Your task to perform on an android device: How big is a dinosaur? Image 0: 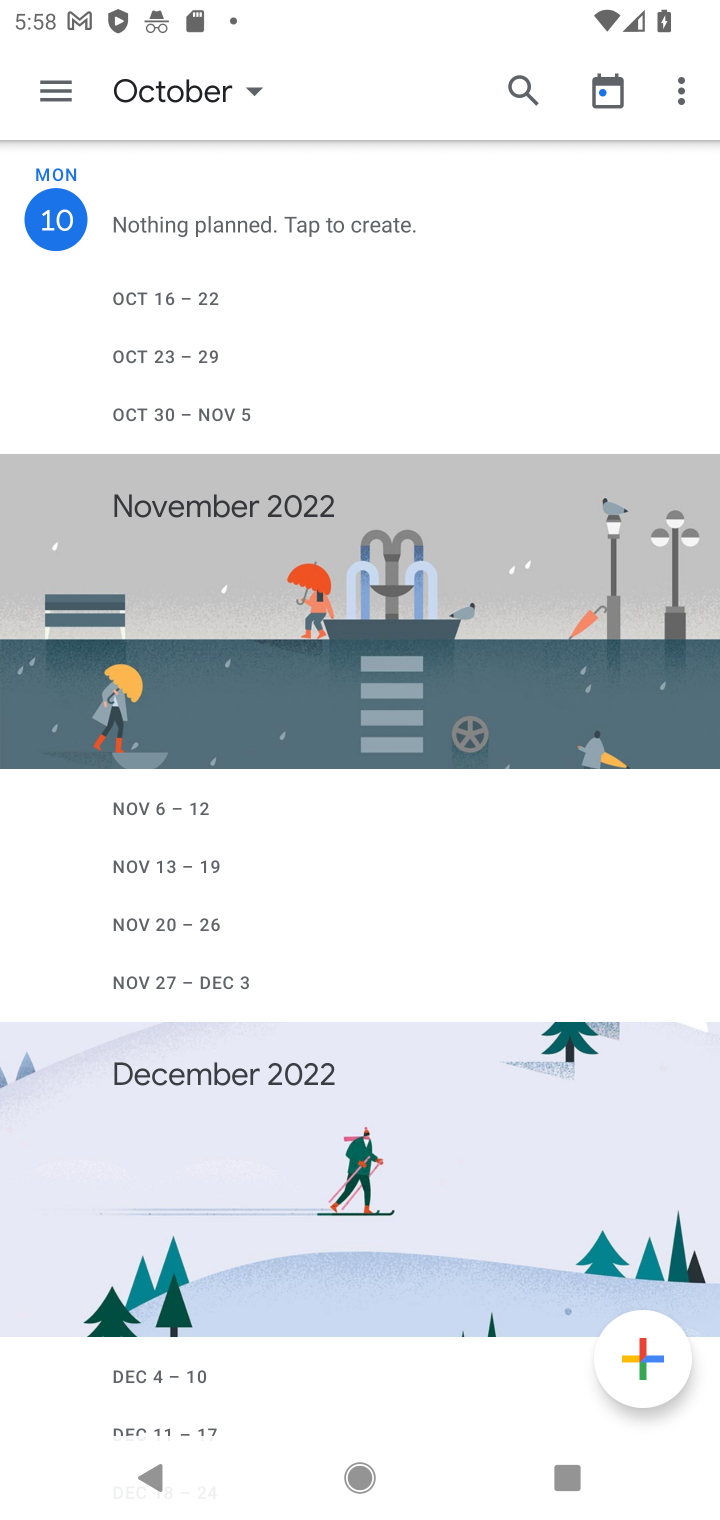
Step 0: press home button
Your task to perform on an android device: How big is a dinosaur? Image 1: 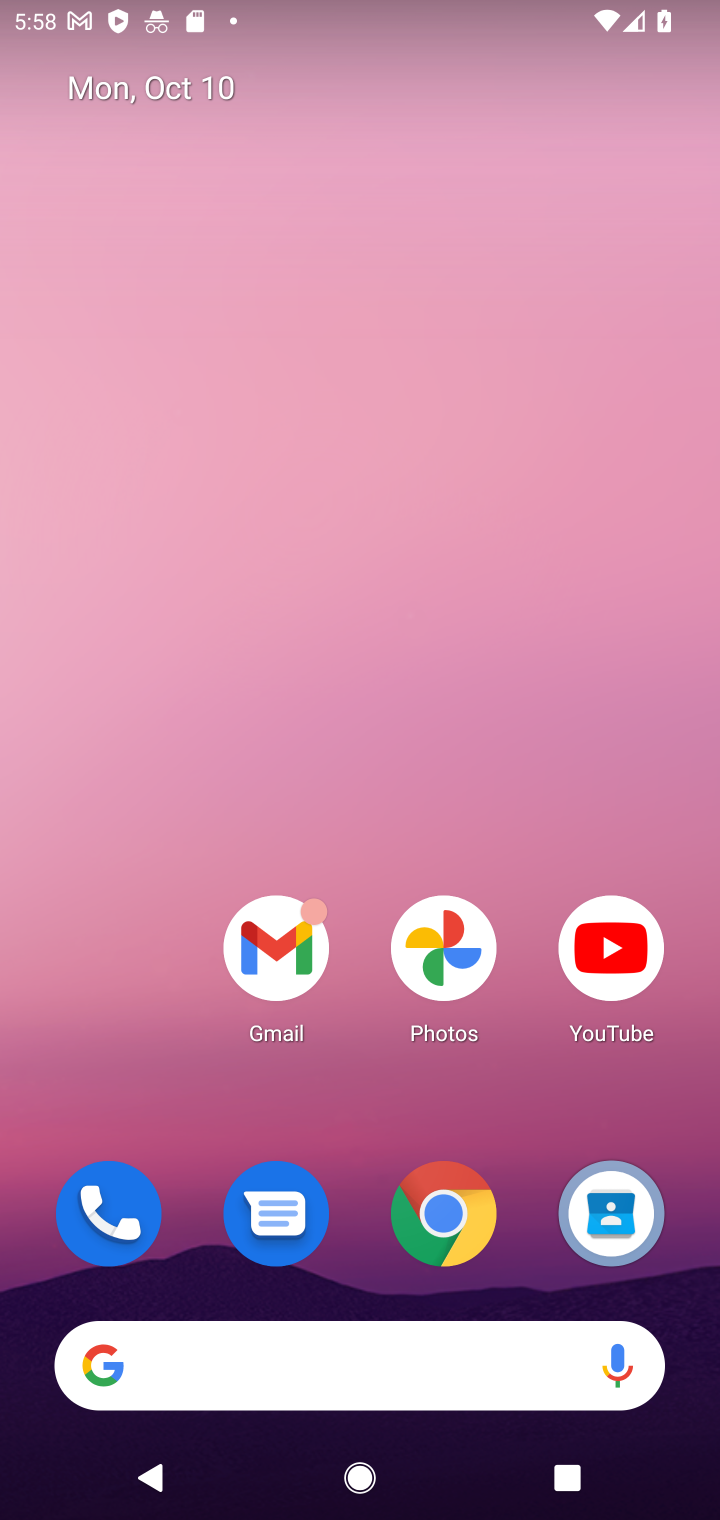
Step 1: click (349, 1382)
Your task to perform on an android device: How big is a dinosaur? Image 2: 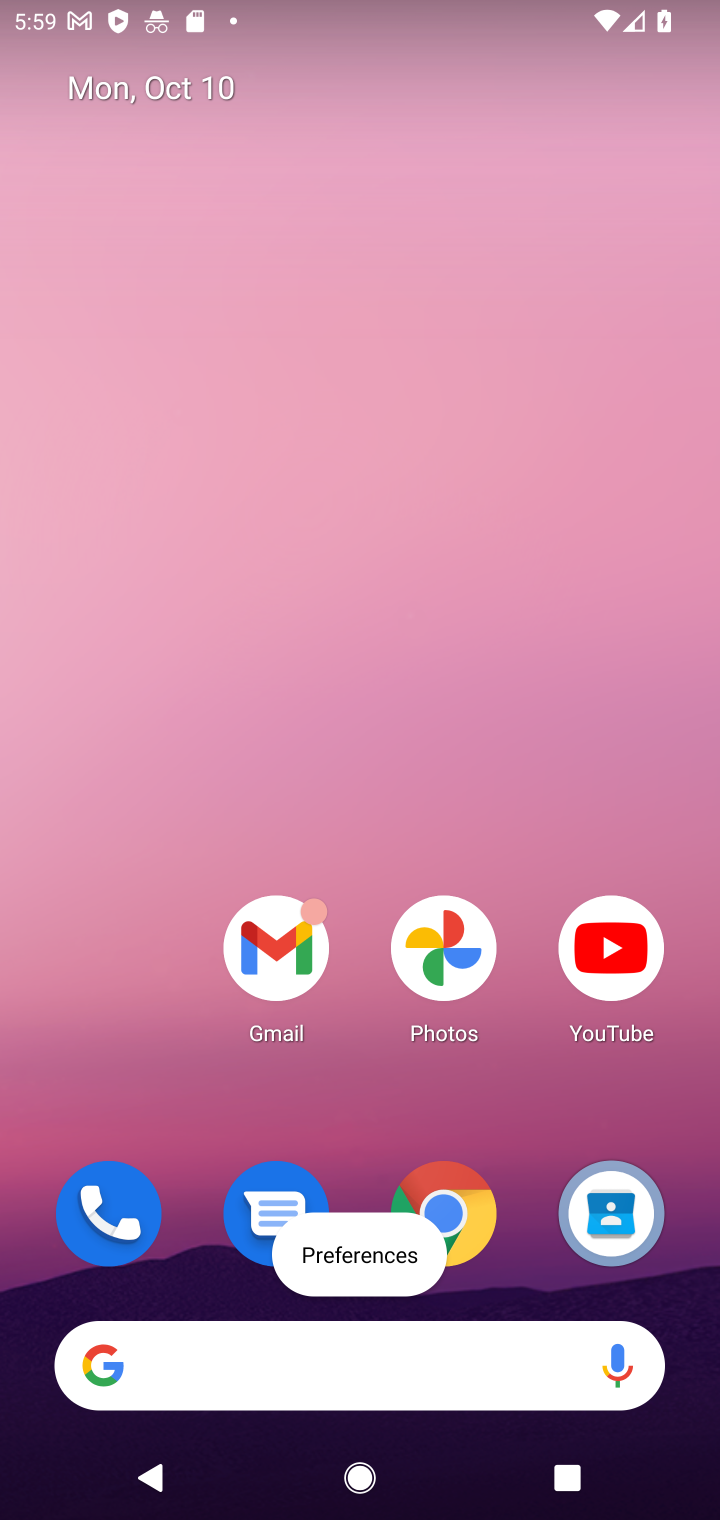
Step 2: click (371, 1377)
Your task to perform on an android device: How big is a dinosaur? Image 3: 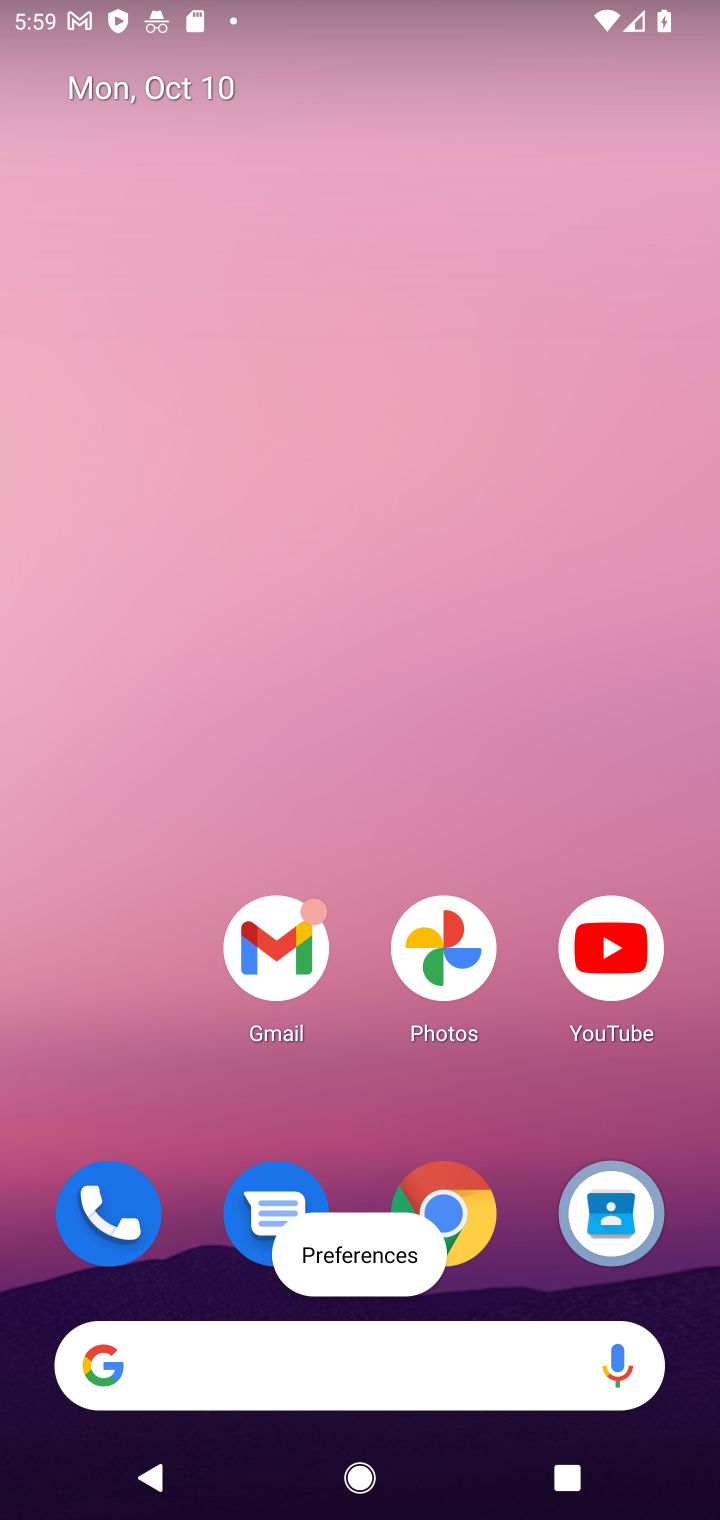
Step 3: click (342, 1355)
Your task to perform on an android device: How big is a dinosaur? Image 4: 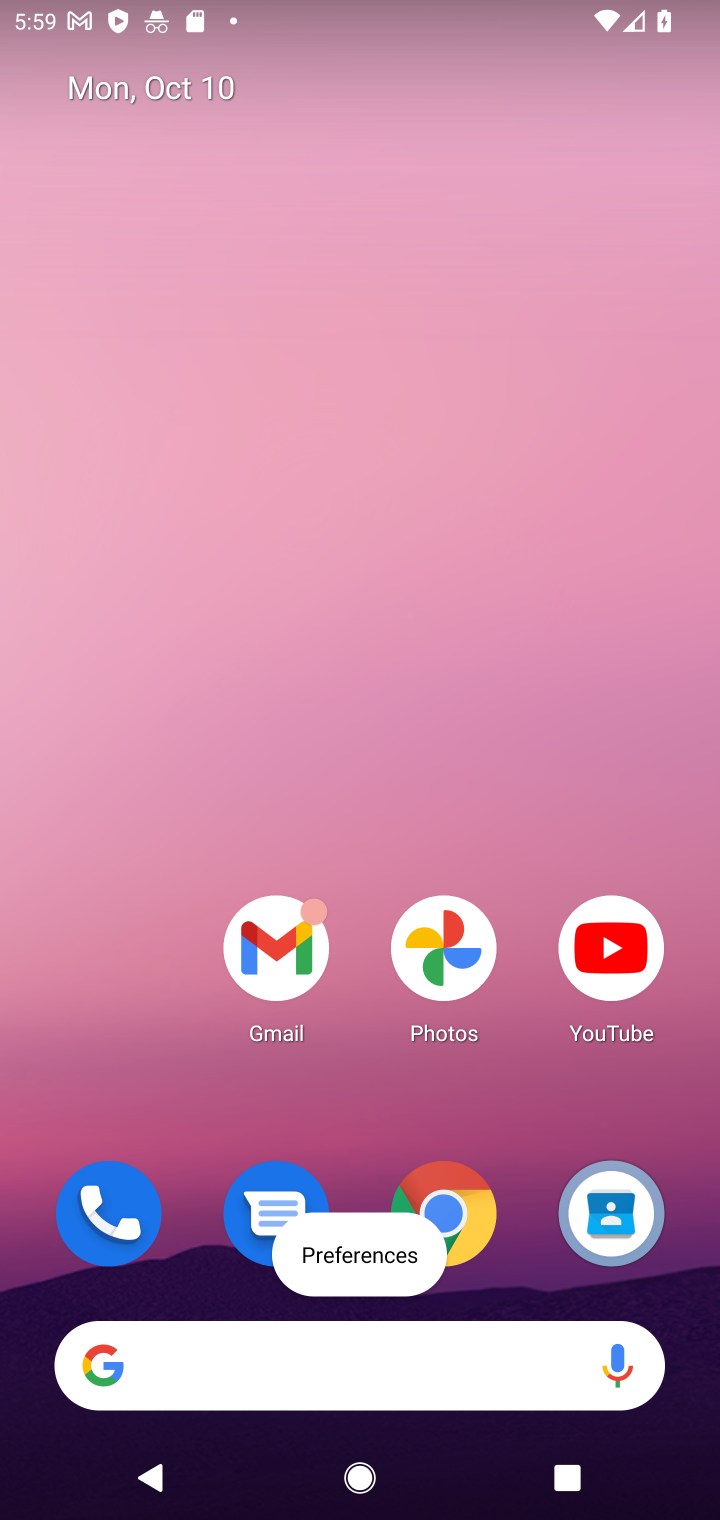
Step 4: type "How big is a dinosaur"
Your task to perform on an android device: How big is a dinosaur? Image 5: 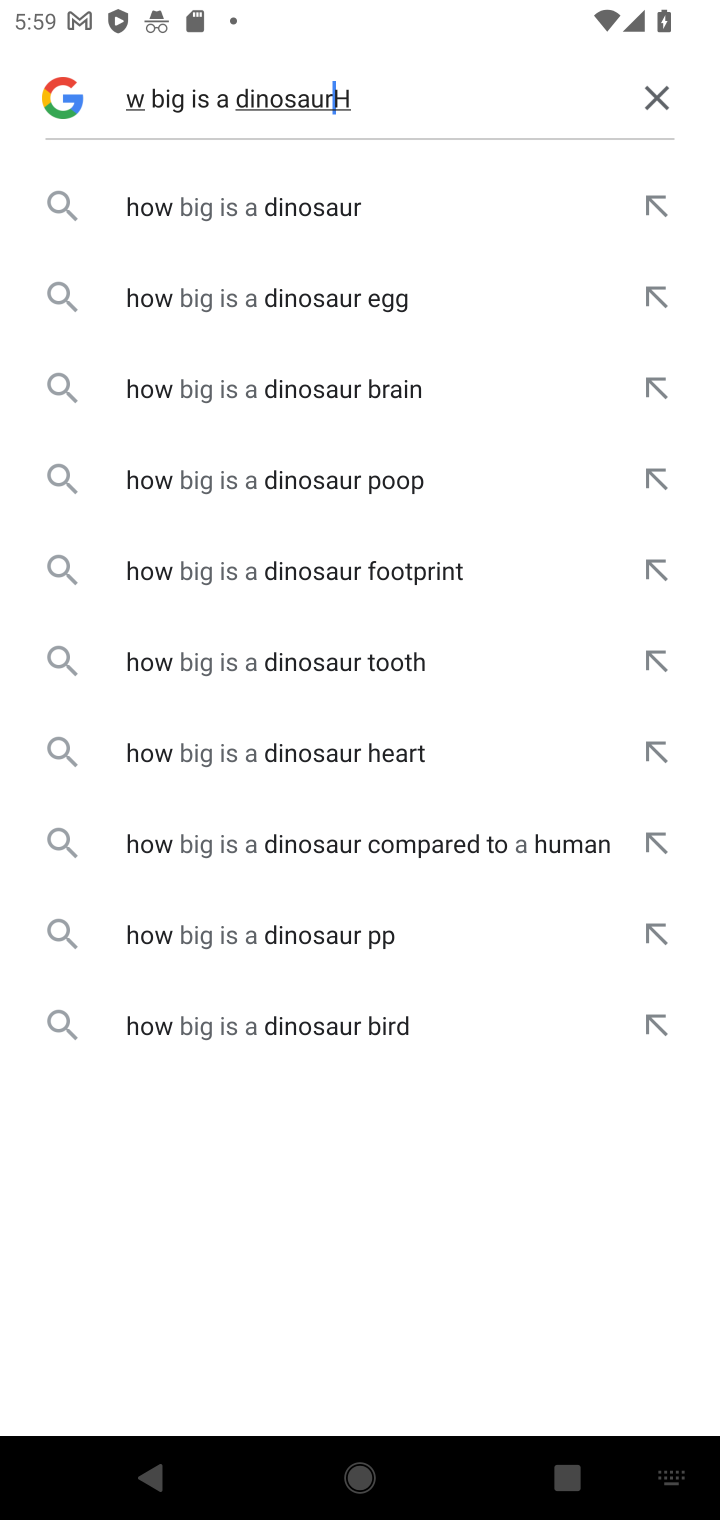
Step 5: click (333, 206)
Your task to perform on an android device: How big is a dinosaur? Image 6: 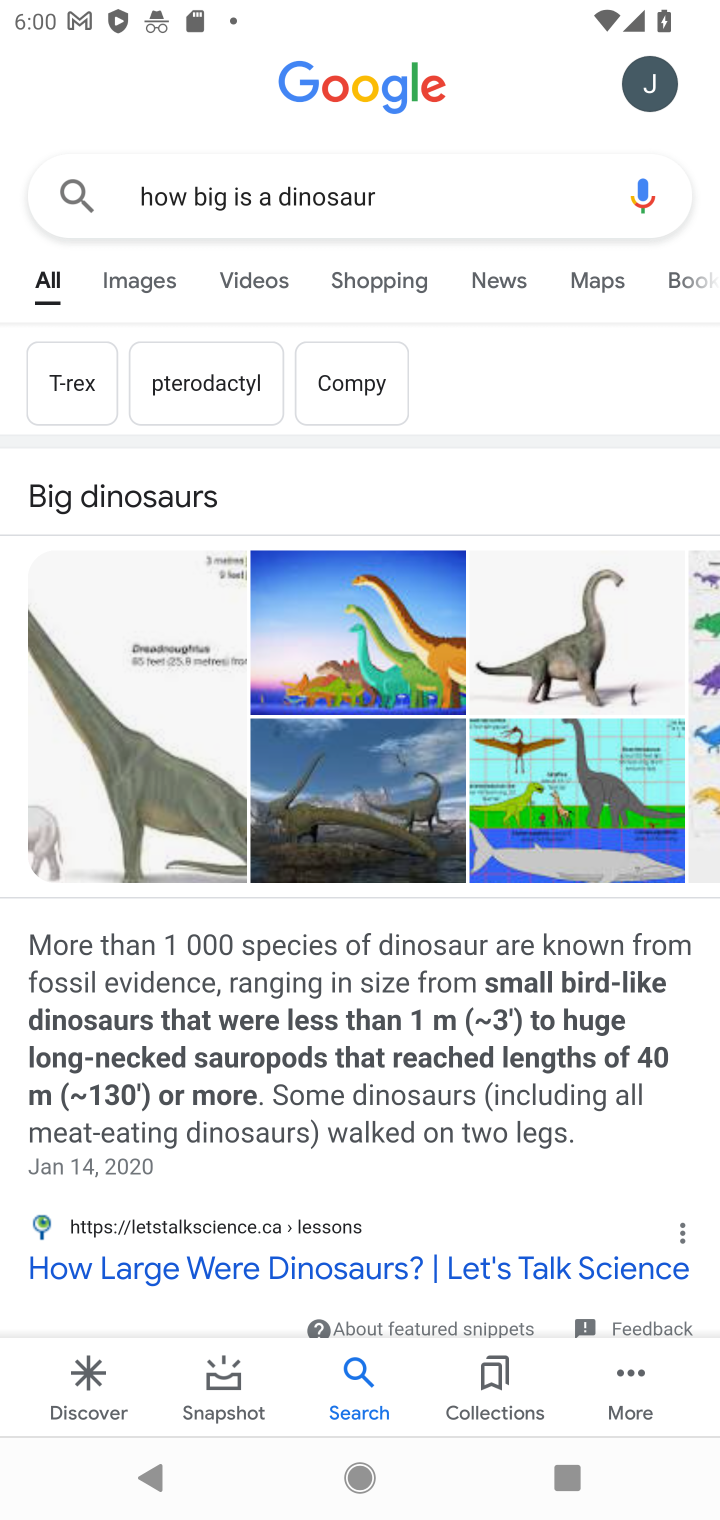
Step 6: task complete